Your task to perform on an android device: change text size in settings app Image 0: 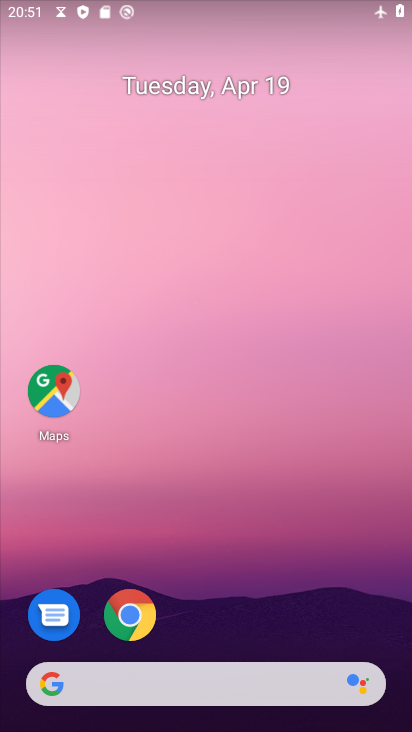
Step 0: drag from (394, 586) to (311, 19)
Your task to perform on an android device: change text size in settings app Image 1: 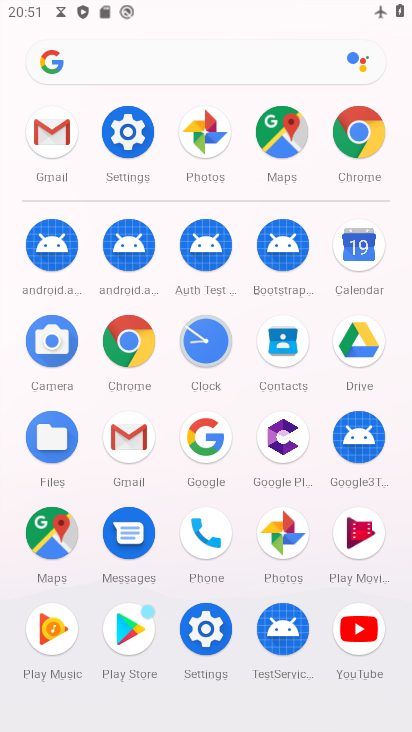
Step 1: drag from (4, 558) to (2, 238)
Your task to perform on an android device: change text size in settings app Image 2: 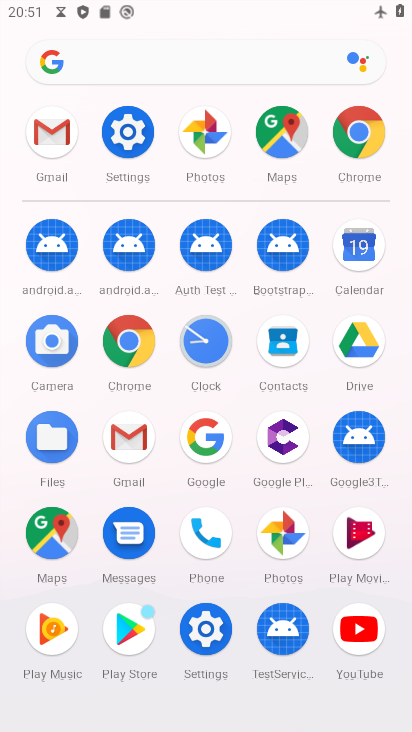
Step 2: click (207, 628)
Your task to perform on an android device: change text size in settings app Image 3: 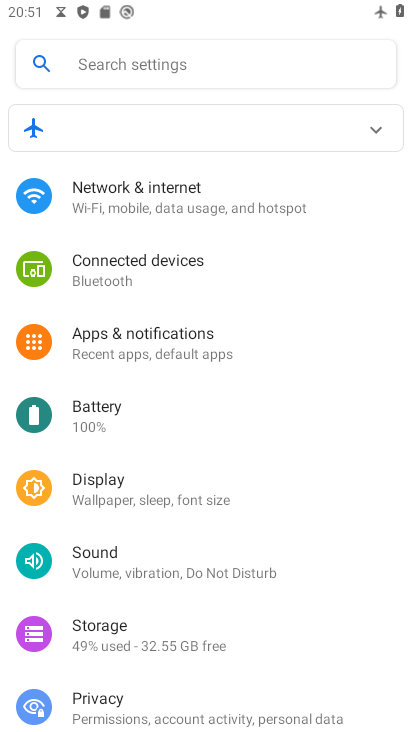
Step 3: click (152, 500)
Your task to perform on an android device: change text size in settings app Image 4: 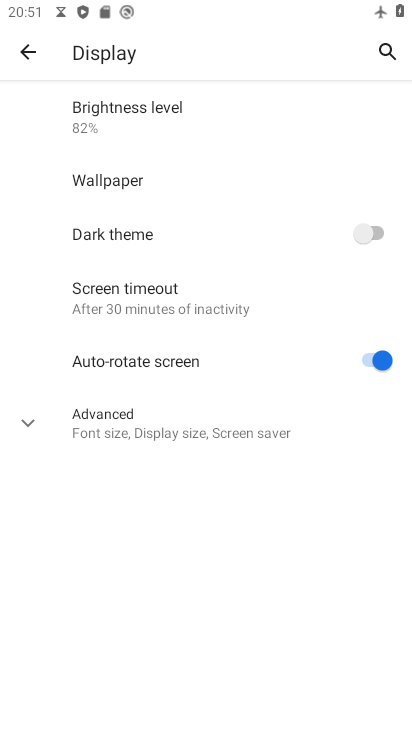
Step 4: click (39, 426)
Your task to perform on an android device: change text size in settings app Image 5: 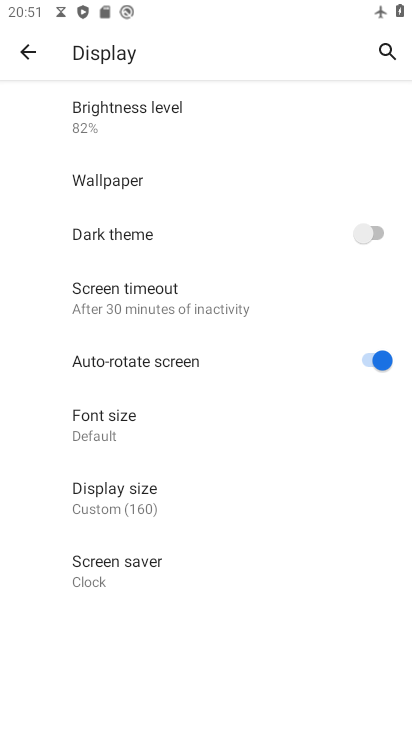
Step 5: click (144, 415)
Your task to perform on an android device: change text size in settings app Image 6: 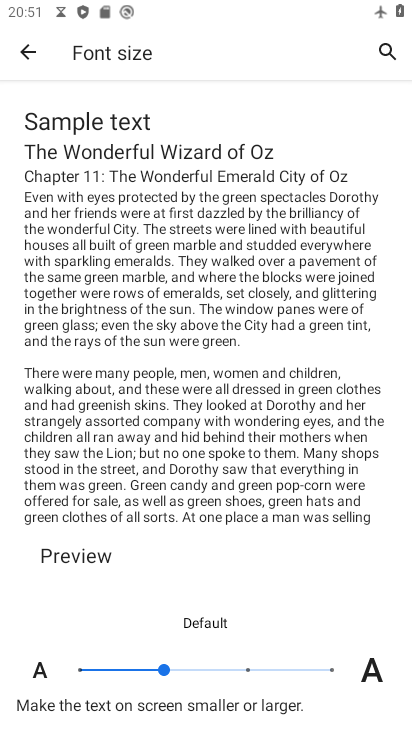
Step 6: click (323, 668)
Your task to perform on an android device: change text size in settings app Image 7: 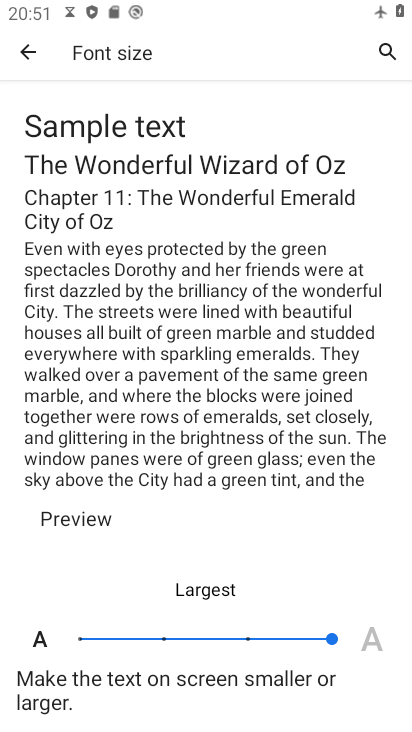
Step 7: task complete